Your task to perform on an android device: What is the news today? Image 0: 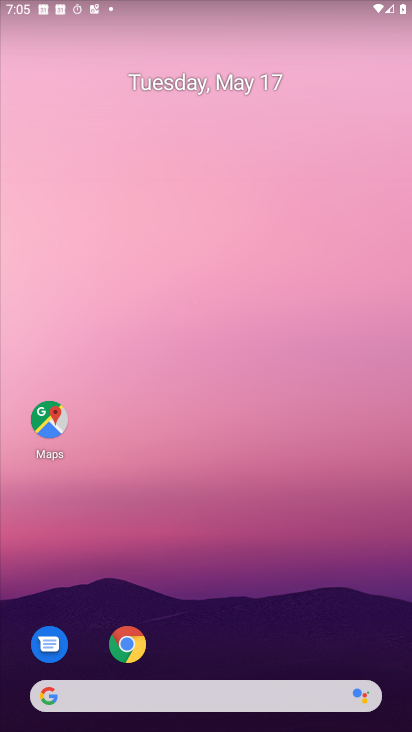
Step 0: drag from (324, 643) to (290, 7)
Your task to perform on an android device: What is the news today? Image 1: 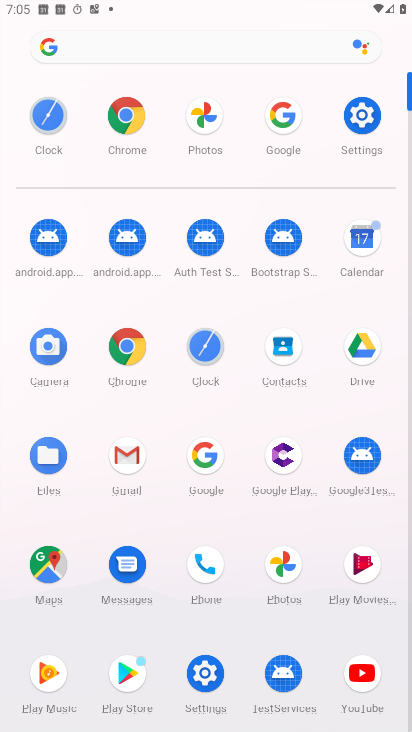
Step 1: click (286, 126)
Your task to perform on an android device: What is the news today? Image 2: 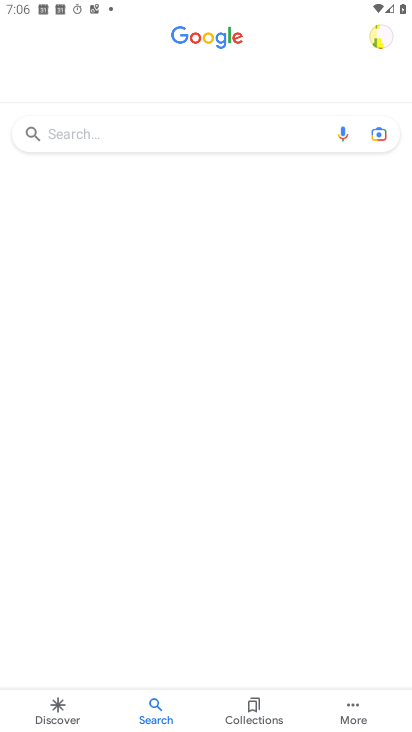
Step 2: click (107, 137)
Your task to perform on an android device: What is the news today? Image 3: 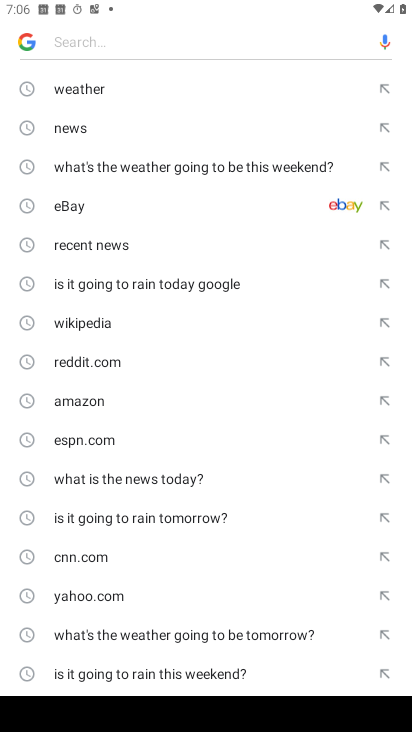
Step 3: drag from (109, 639) to (153, 536)
Your task to perform on an android device: What is the news today? Image 4: 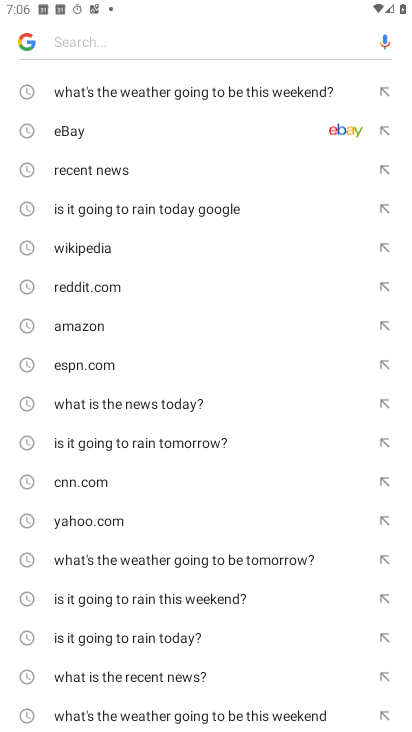
Step 4: click (174, 407)
Your task to perform on an android device: What is the news today? Image 5: 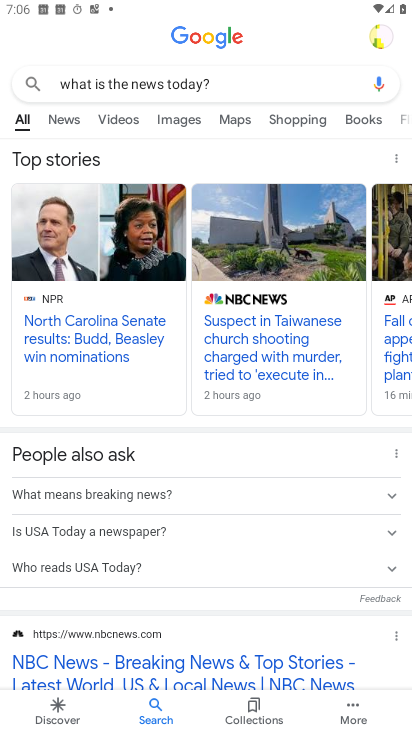
Step 5: task complete